Your task to perform on an android device: check google app version Image 0: 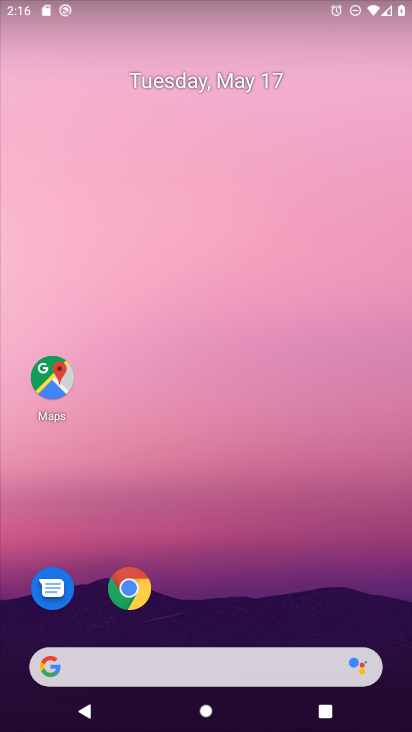
Step 0: drag from (195, 570) to (108, 137)
Your task to perform on an android device: check google app version Image 1: 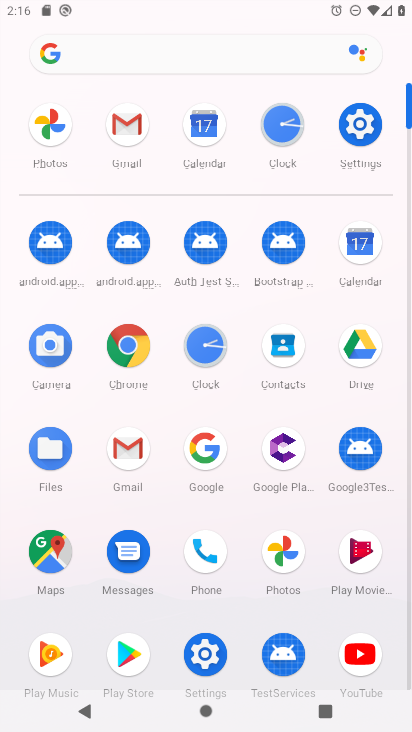
Step 1: click (198, 457)
Your task to perform on an android device: check google app version Image 2: 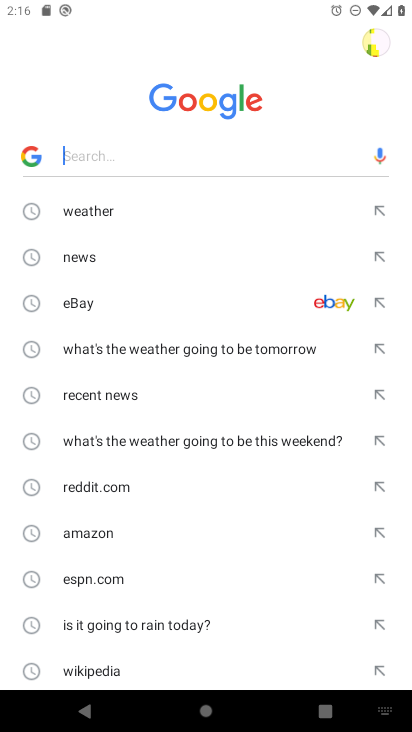
Step 2: click (377, 40)
Your task to perform on an android device: check google app version Image 3: 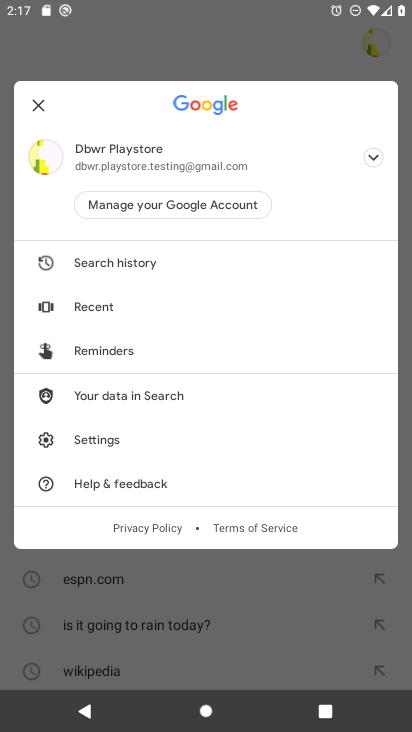
Step 3: click (96, 435)
Your task to perform on an android device: check google app version Image 4: 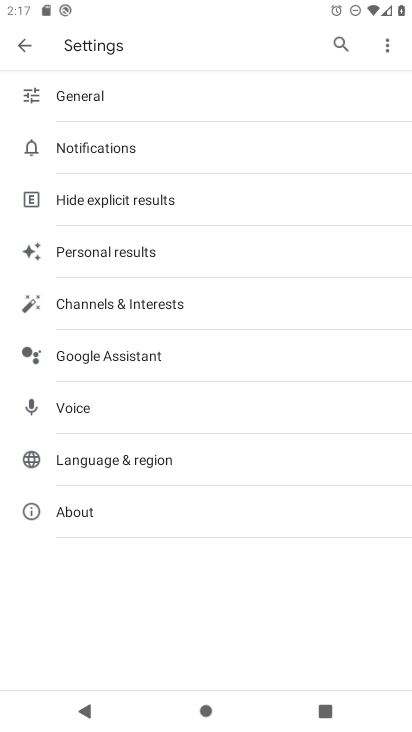
Step 4: click (75, 499)
Your task to perform on an android device: check google app version Image 5: 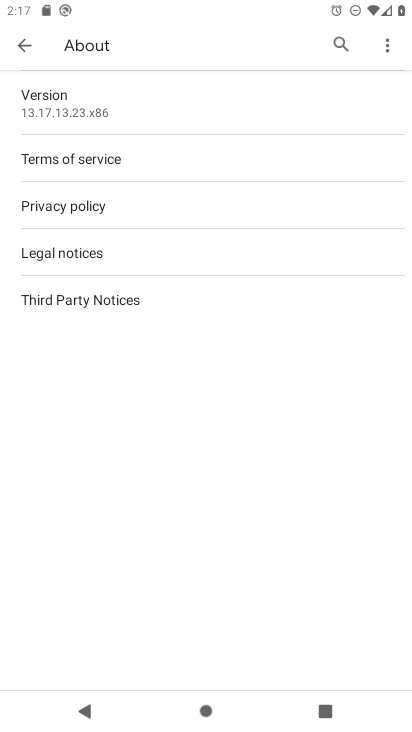
Step 5: click (70, 112)
Your task to perform on an android device: check google app version Image 6: 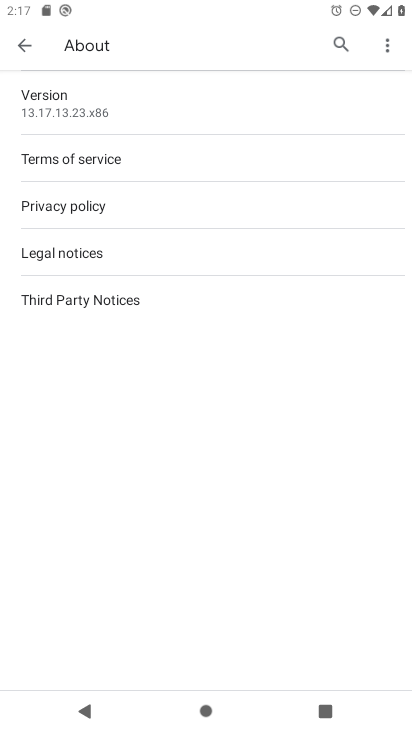
Step 6: task complete